Your task to perform on an android device: delete the emails in spam in the gmail app Image 0: 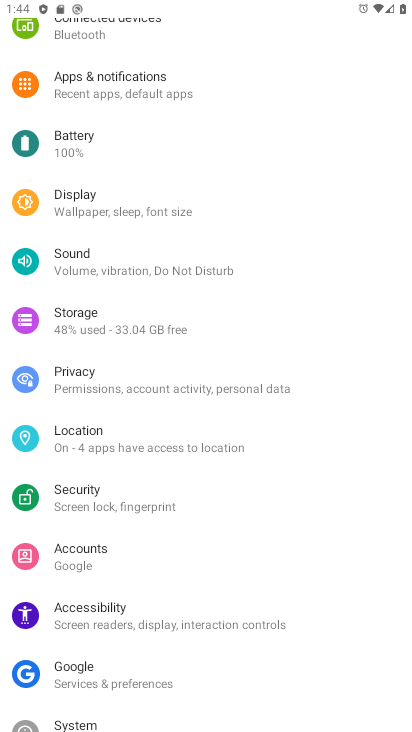
Step 0: press home button
Your task to perform on an android device: delete the emails in spam in the gmail app Image 1: 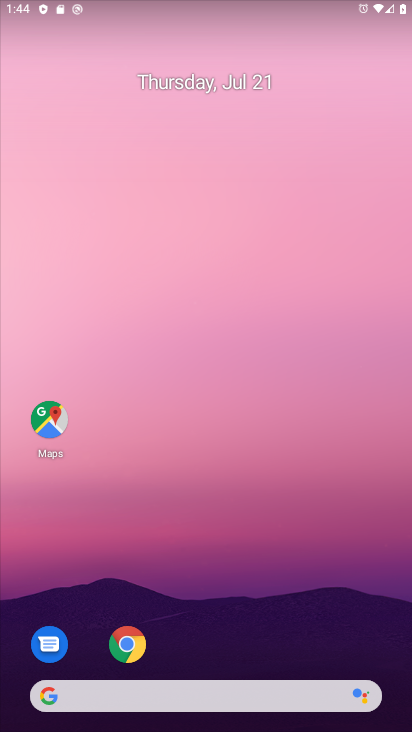
Step 1: drag from (220, 584) to (290, 121)
Your task to perform on an android device: delete the emails in spam in the gmail app Image 2: 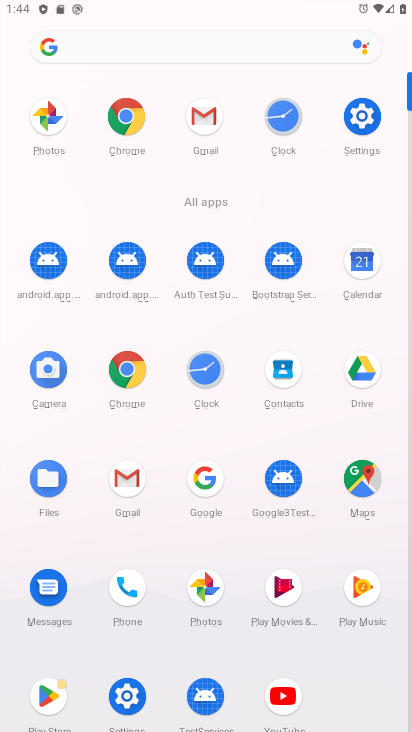
Step 2: click (131, 476)
Your task to perform on an android device: delete the emails in spam in the gmail app Image 3: 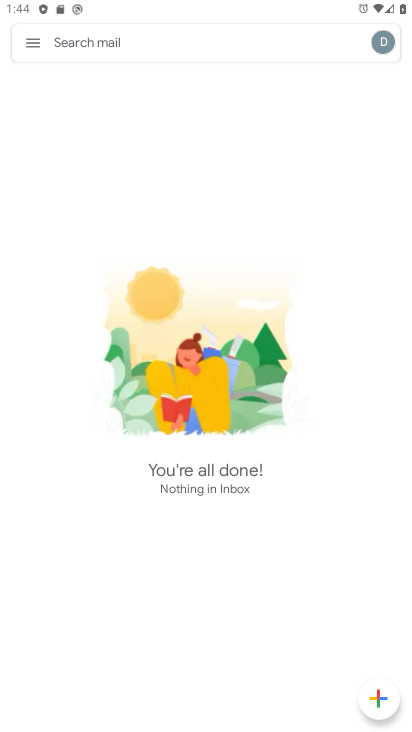
Step 3: click (35, 44)
Your task to perform on an android device: delete the emails in spam in the gmail app Image 4: 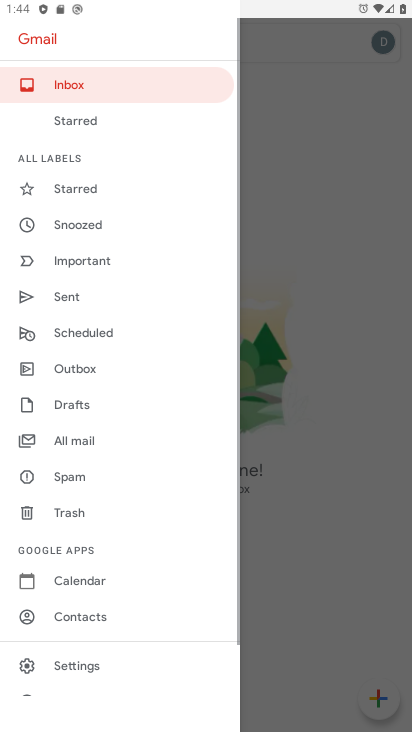
Step 4: click (80, 471)
Your task to perform on an android device: delete the emails in spam in the gmail app Image 5: 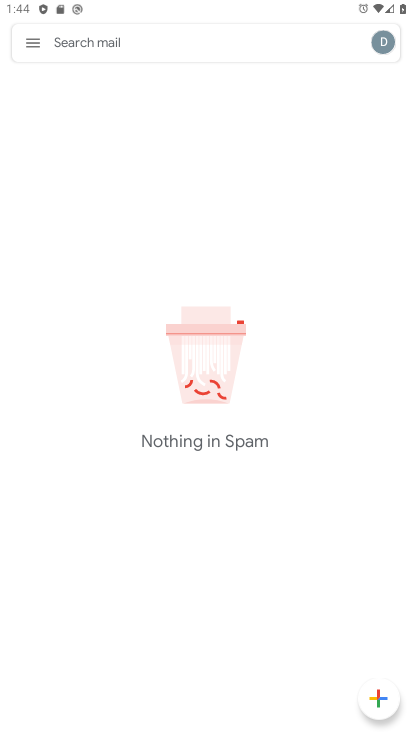
Step 5: task complete